Your task to perform on an android device: turn on sleep mode Image 0: 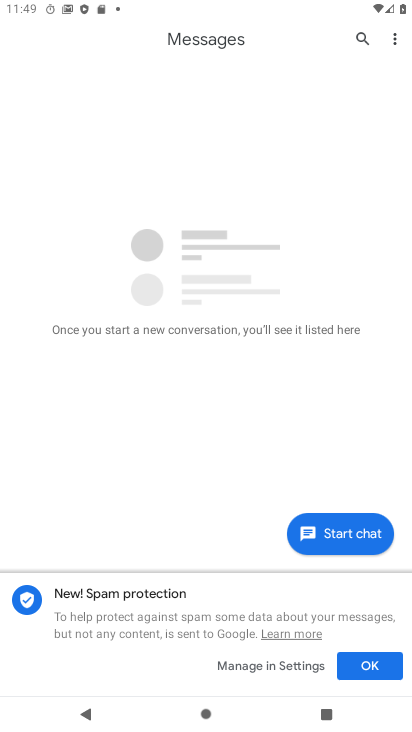
Step 0: press home button
Your task to perform on an android device: turn on sleep mode Image 1: 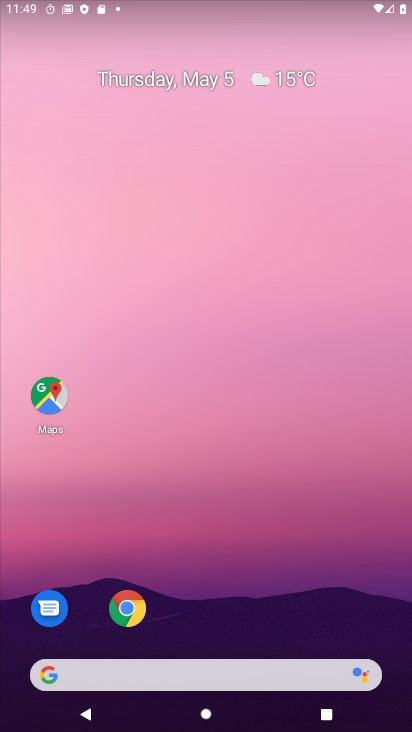
Step 1: drag from (215, 571) to (183, 152)
Your task to perform on an android device: turn on sleep mode Image 2: 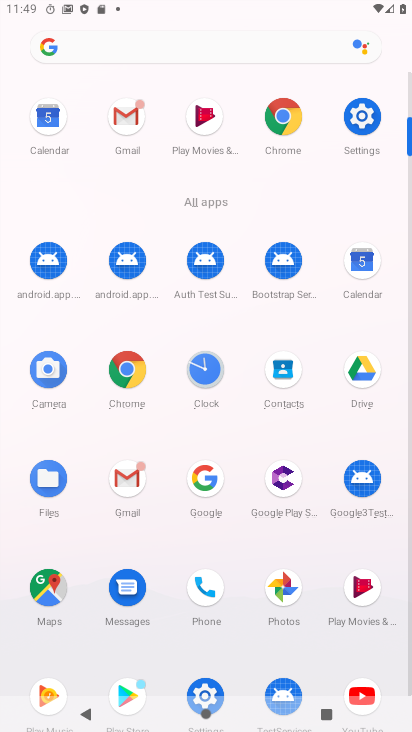
Step 2: click (358, 114)
Your task to perform on an android device: turn on sleep mode Image 3: 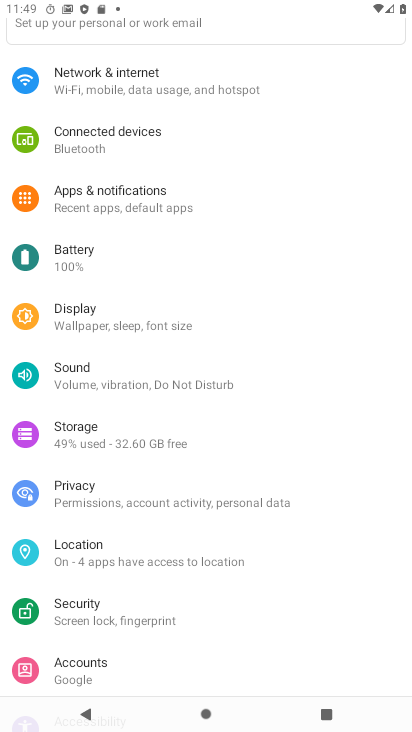
Step 3: drag from (172, 359) to (233, 272)
Your task to perform on an android device: turn on sleep mode Image 4: 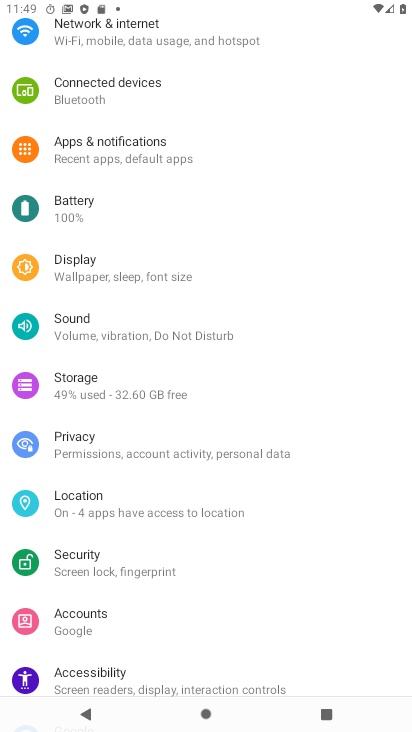
Step 4: click (162, 282)
Your task to perform on an android device: turn on sleep mode Image 5: 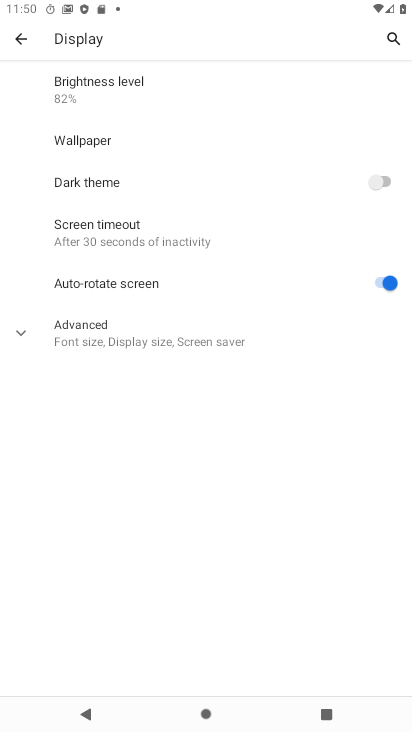
Step 5: click (162, 281)
Your task to perform on an android device: turn on sleep mode Image 6: 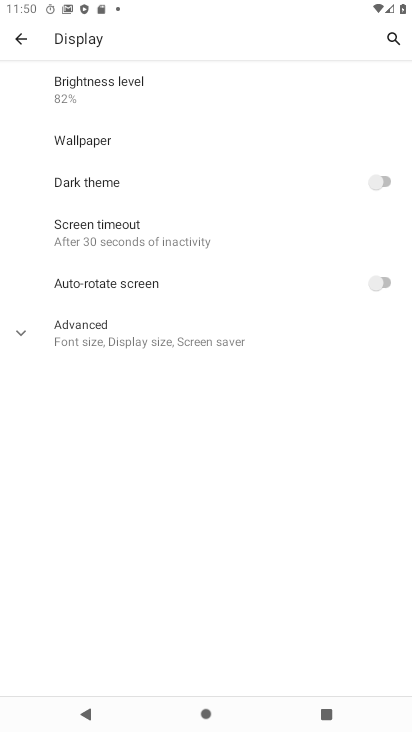
Step 6: click (120, 278)
Your task to perform on an android device: turn on sleep mode Image 7: 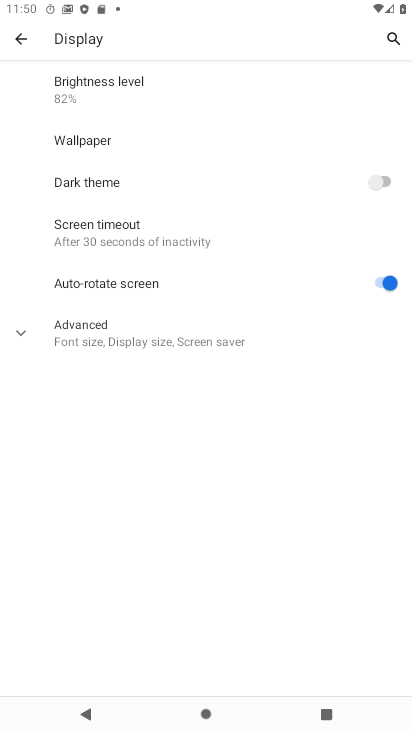
Step 7: click (133, 233)
Your task to perform on an android device: turn on sleep mode Image 8: 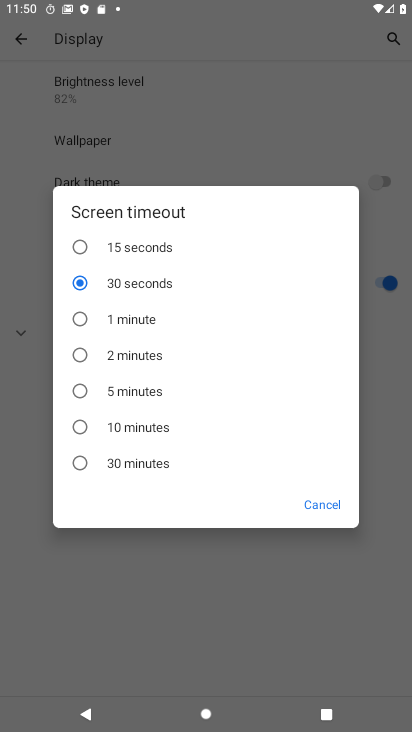
Step 8: task complete